Your task to perform on an android device: Open Chrome and go to the settings page Image 0: 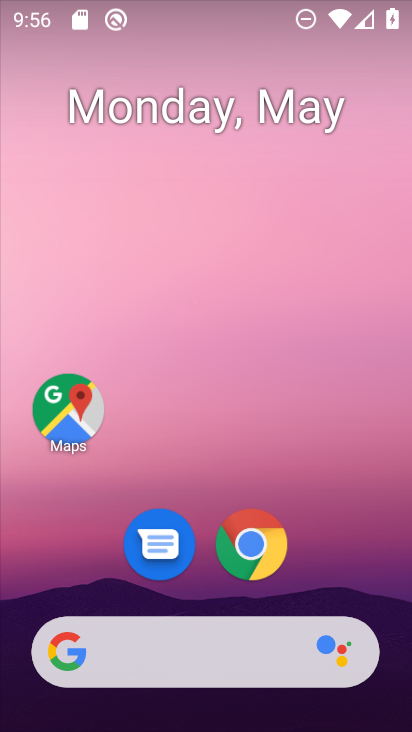
Step 0: click (279, 534)
Your task to perform on an android device: Open Chrome and go to the settings page Image 1: 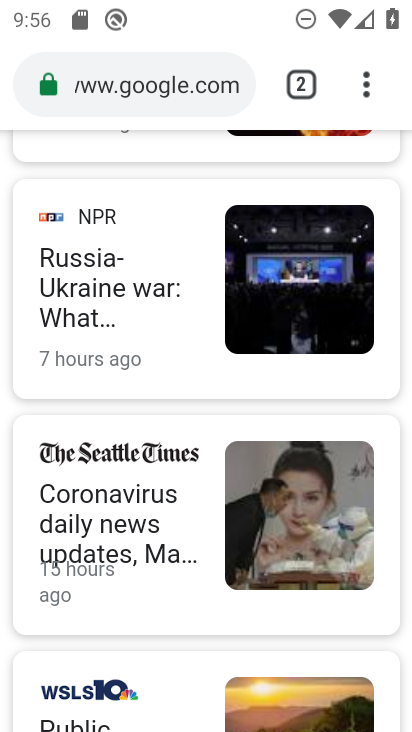
Step 1: click (364, 88)
Your task to perform on an android device: Open Chrome and go to the settings page Image 2: 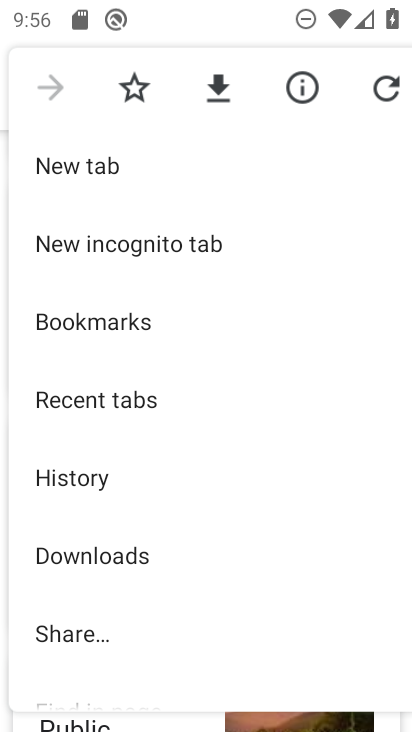
Step 2: drag from (87, 661) to (72, 497)
Your task to perform on an android device: Open Chrome and go to the settings page Image 3: 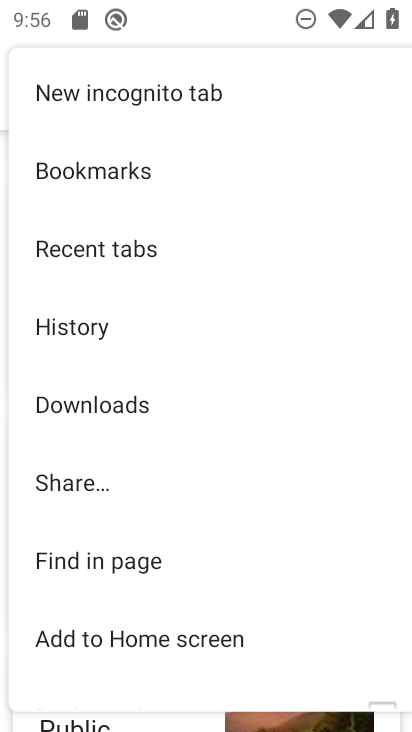
Step 3: drag from (70, 470) to (70, 427)
Your task to perform on an android device: Open Chrome and go to the settings page Image 4: 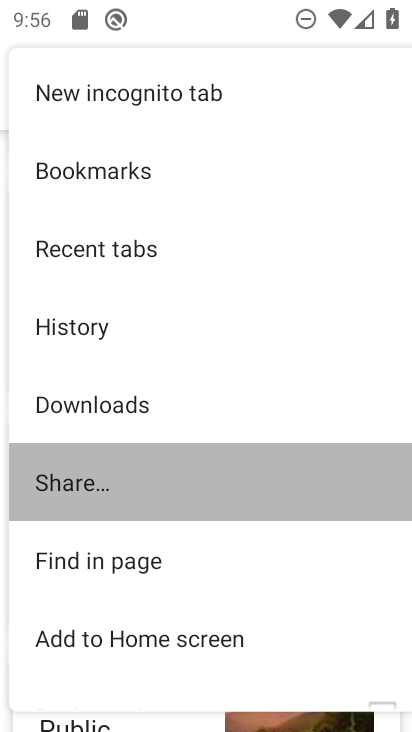
Step 4: drag from (70, 337) to (317, 119)
Your task to perform on an android device: Open Chrome and go to the settings page Image 5: 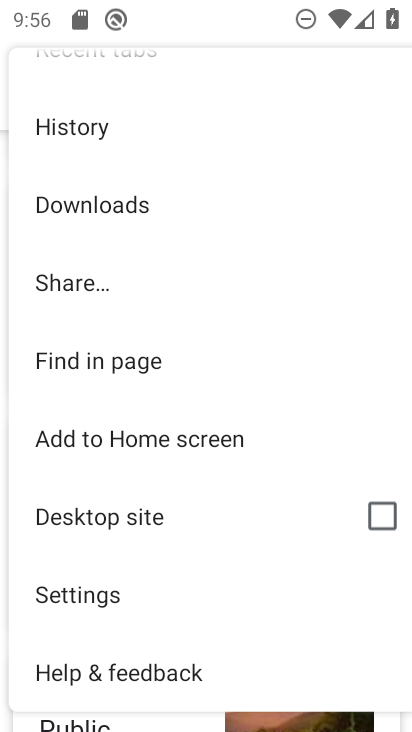
Step 5: click (109, 596)
Your task to perform on an android device: Open Chrome and go to the settings page Image 6: 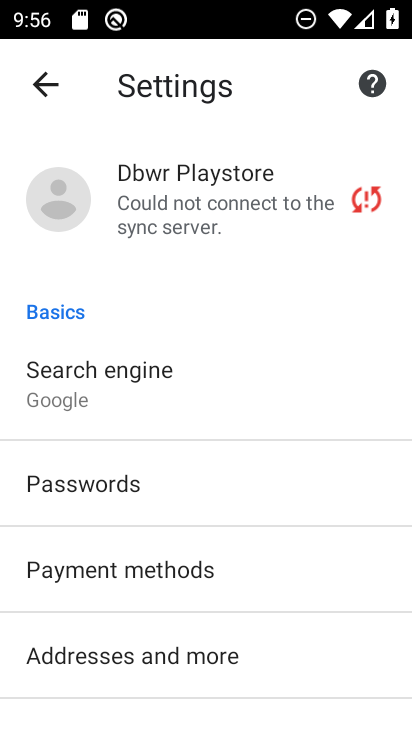
Step 6: task complete